Your task to perform on an android device: turn off notifications in google photos Image 0: 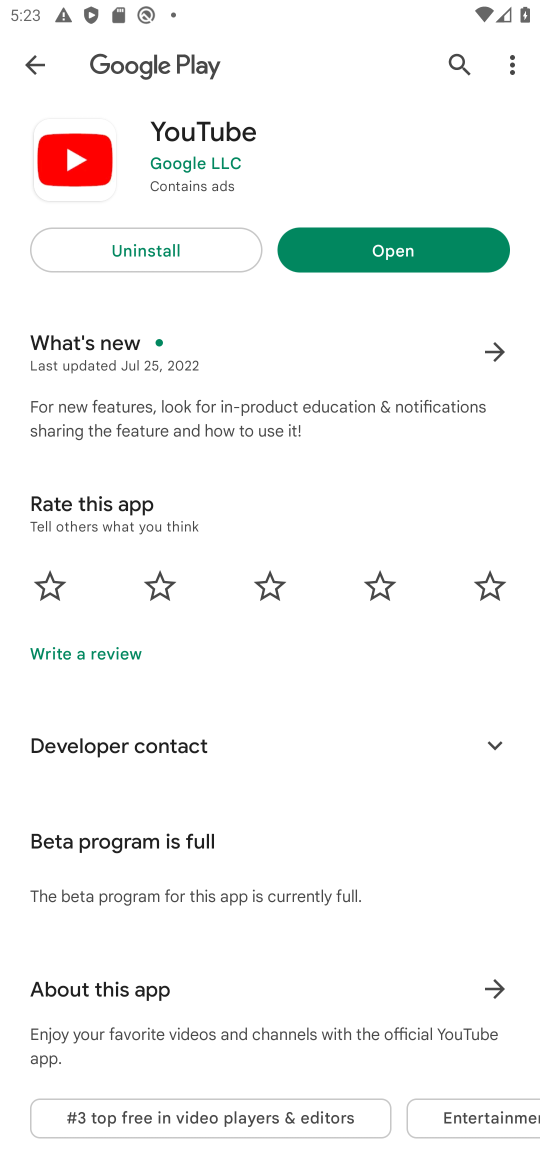
Step 0: press home button
Your task to perform on an android device: turn off notifications in google photos Image 1: 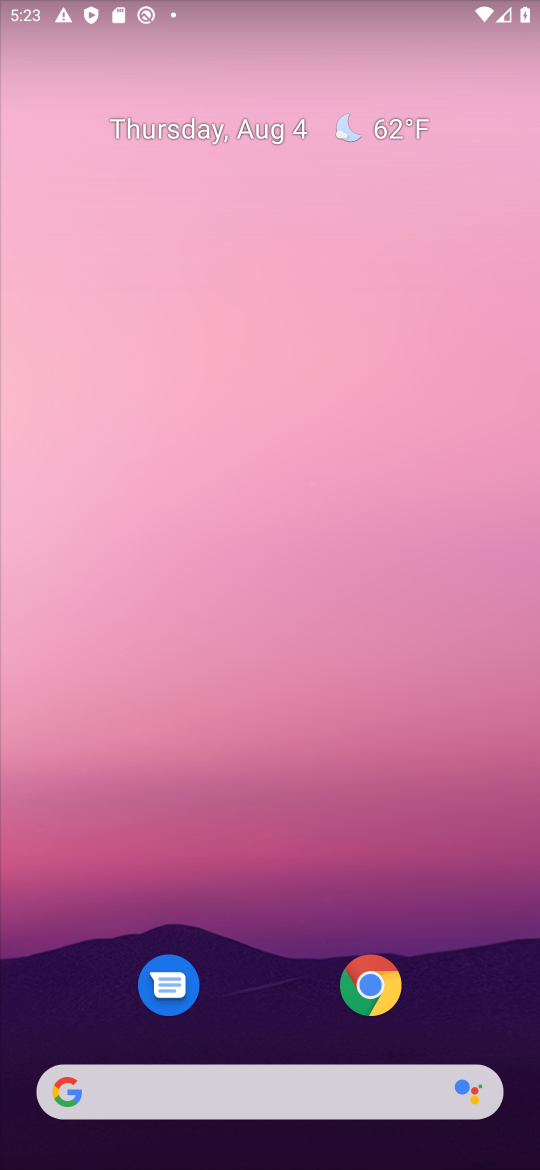
Step 1: drag from (302, 1106) to (387, 12)
Your task to perform on an android device: turn off notifications in google photos Image 2: 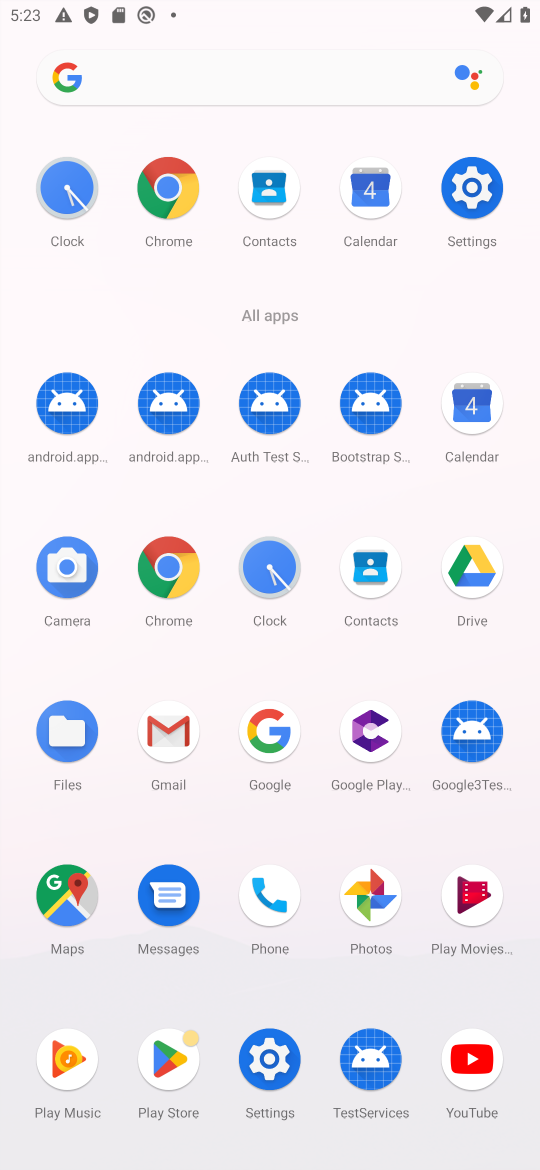
Step 2: click (365, 883)
Your task to perform on an android device: turn off notifications in google photos Image 3: 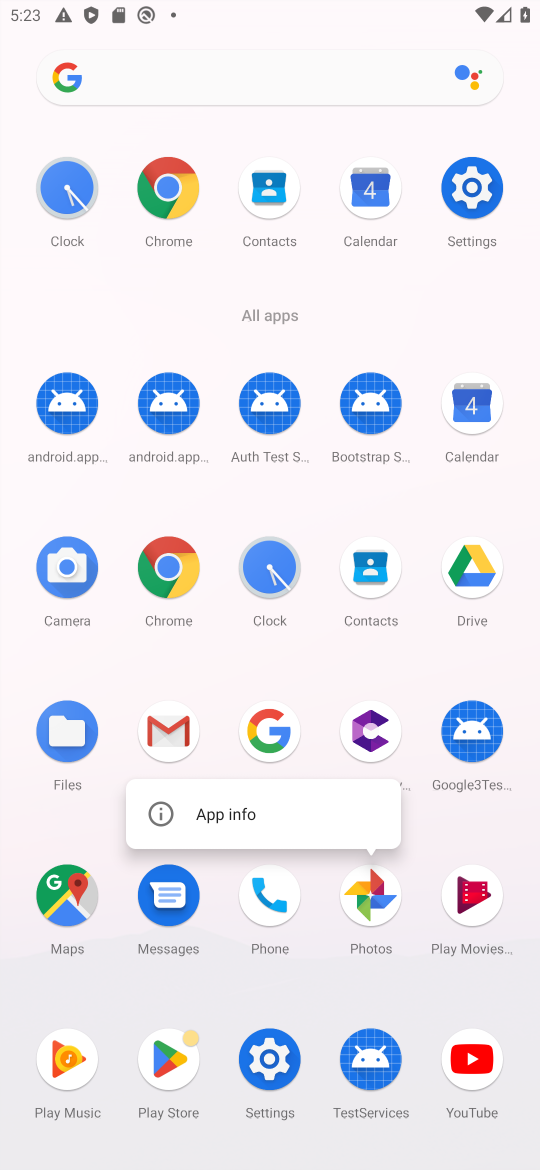
Step 3: click (365, 883)
Your task to perform on an android device: turn off notifications in google photos Image 4: 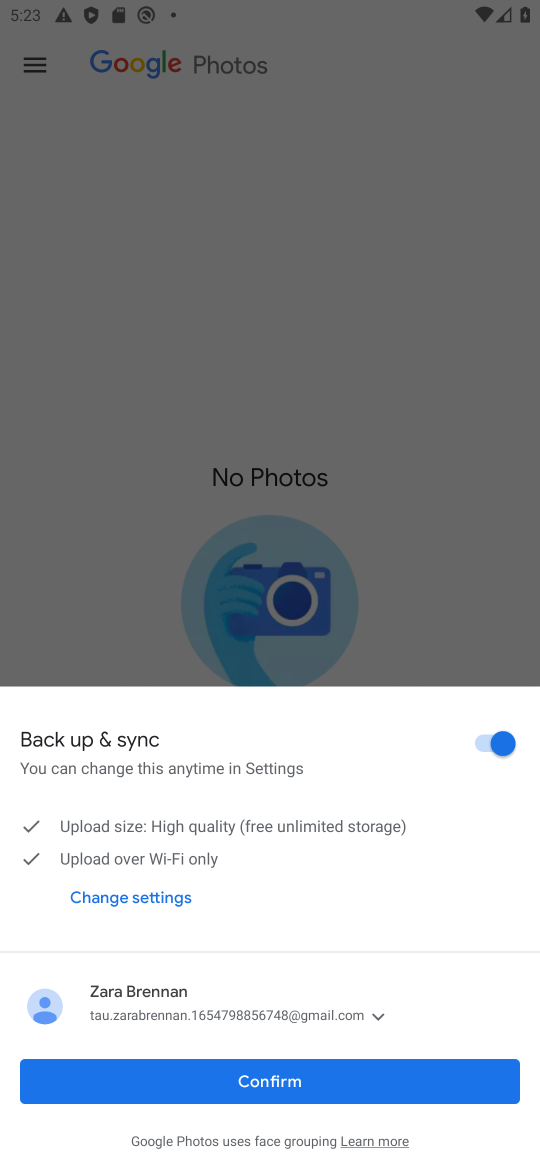
Step 4: click (315, 1060)
Your task to perform on an android device: turn off notifications in google photos Image 5: 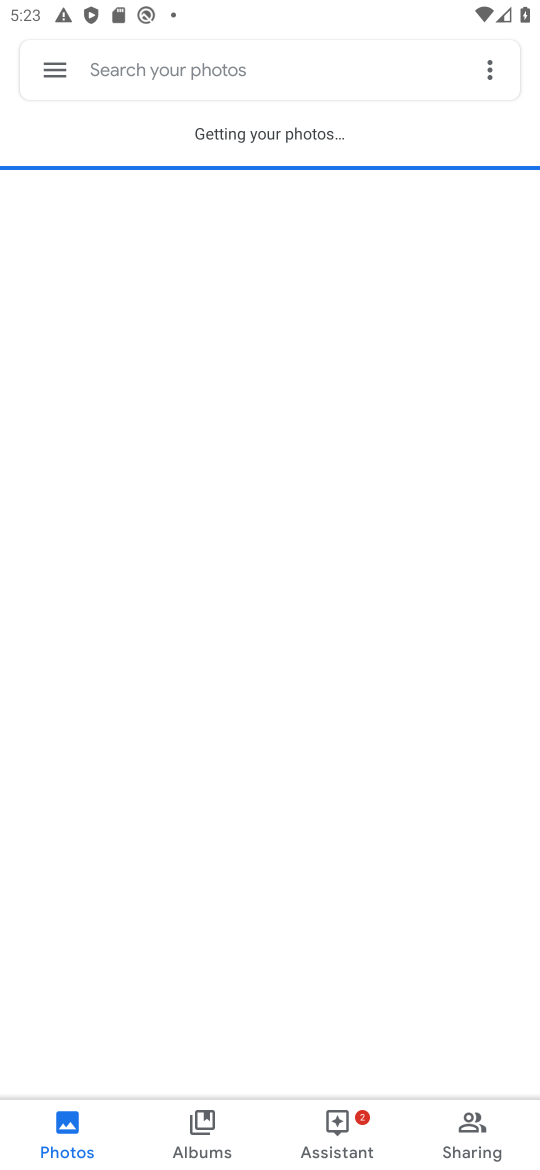
Step 5: click (42, 54)
Your task to perform on an android device: turn off notifications in google photos Image 6: 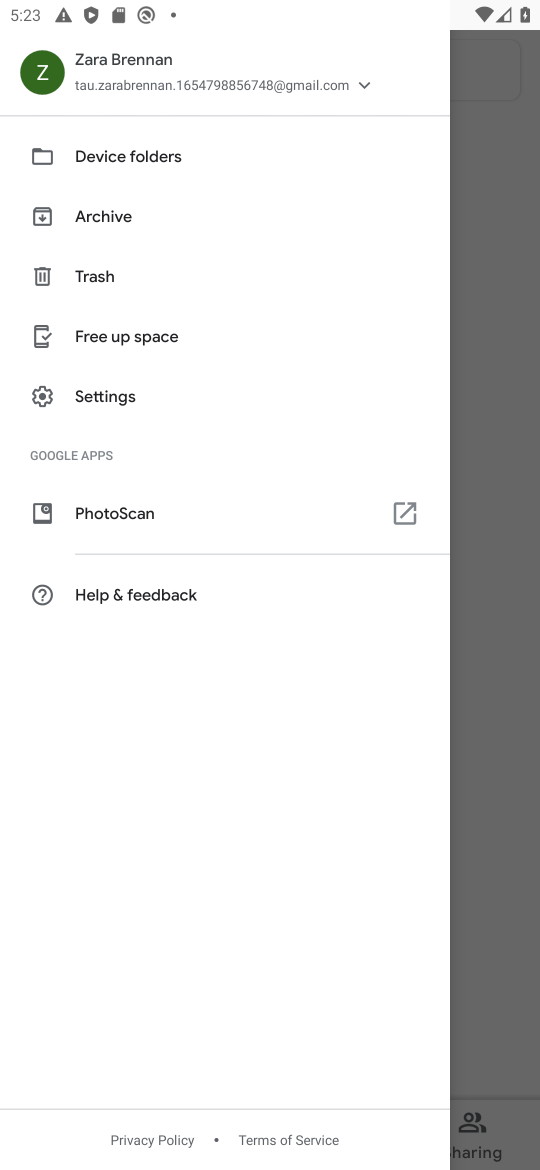
Step 6: click (108, 391)
Your task to perform on an android device: turn off notifications in google photos Image 7: 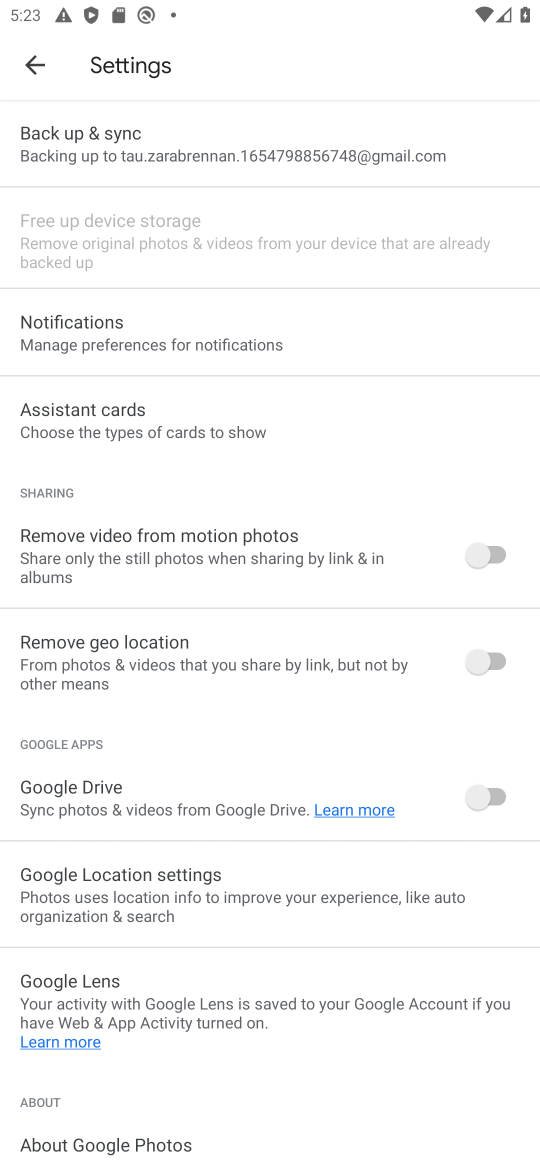
Step 7: click (99, 342)
Your task to perform on an android device: turn off notifications in google photos Image 8: 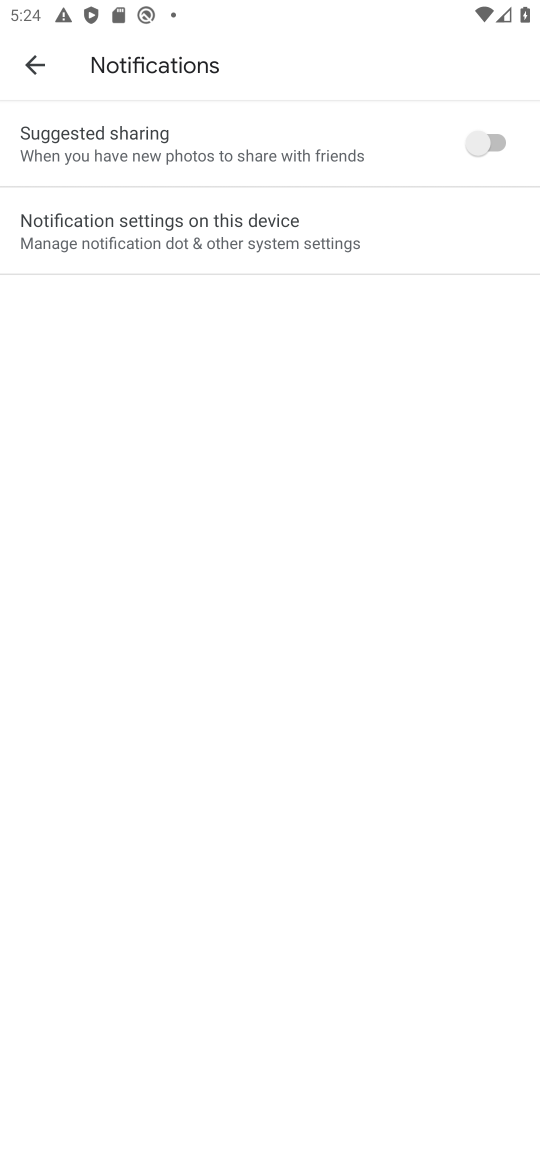
Step 8: click (196, 238)
Your task to perform on an android device: turn off notifications in google photos Image 9: 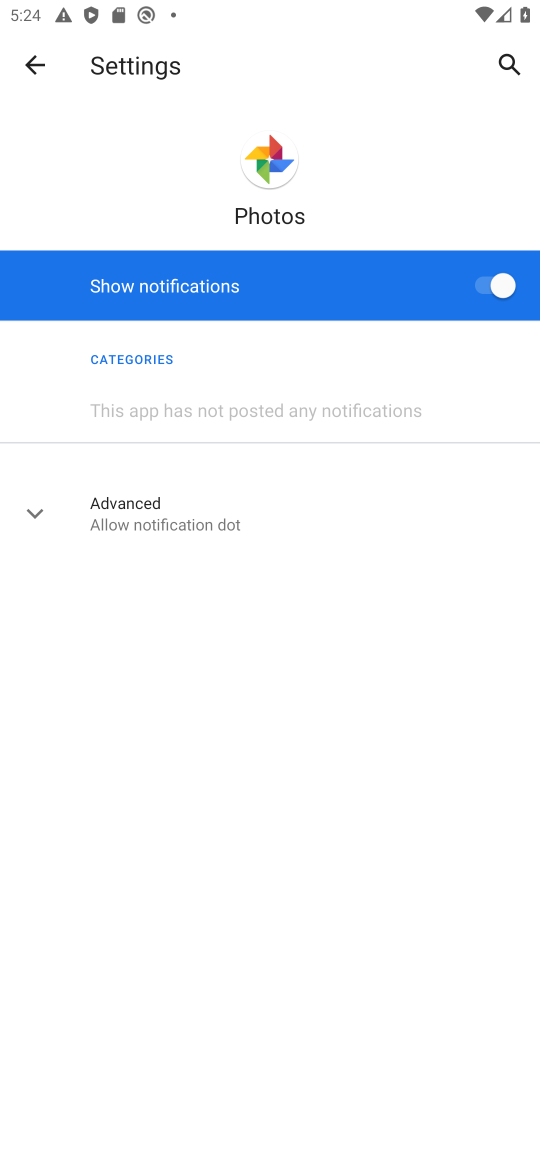
Step 9: click (494, 297)
Your task to perform on an android device: turn off notifications in google photos Image 10: 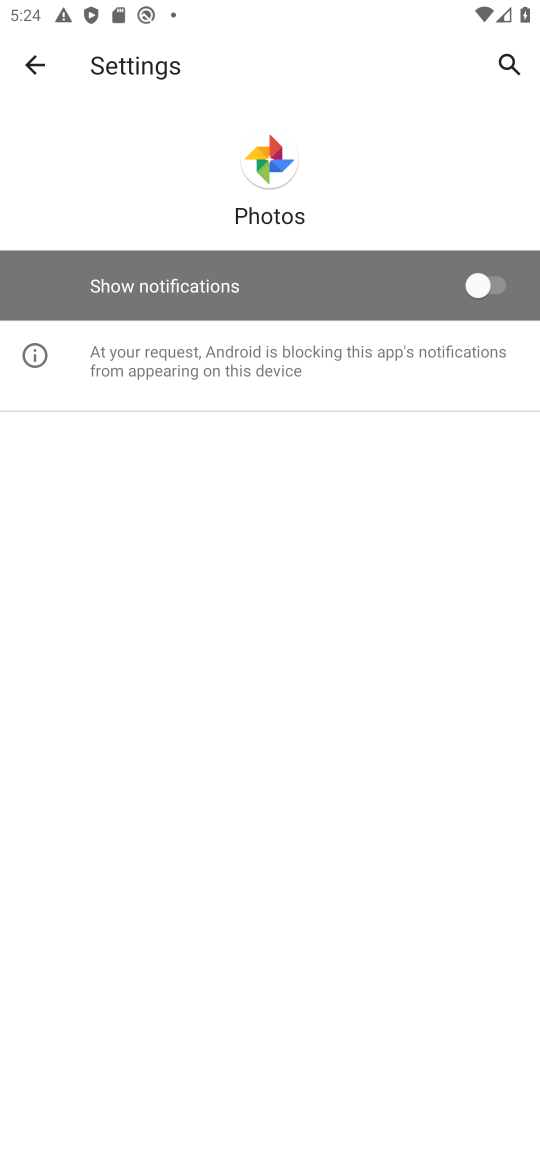
Step 10: task complete